Your task to perform on an android device: move an email to a new category in the gmail app Image 0: 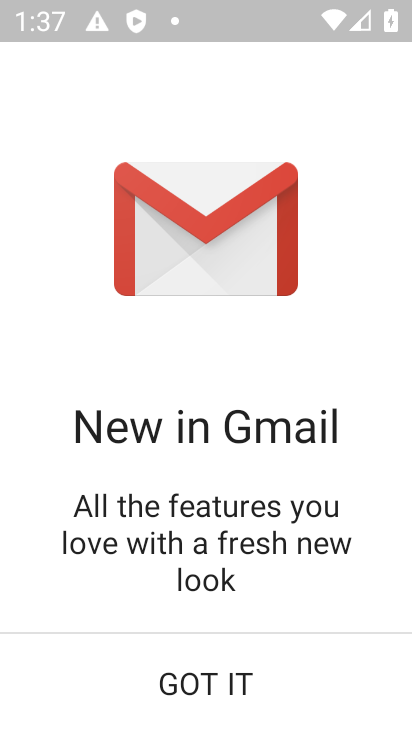
Step 0: press home button
Your task to perform on an android device: move an email to a new category in the gmail app Image 1: 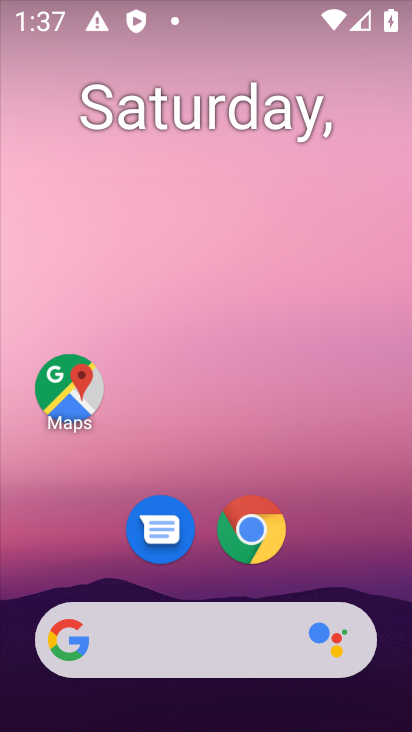
Step 1: drag from (358, 378) to (241, 21)
Your task to perform on an android device: move an email to a new category in the gmail app Image 2: 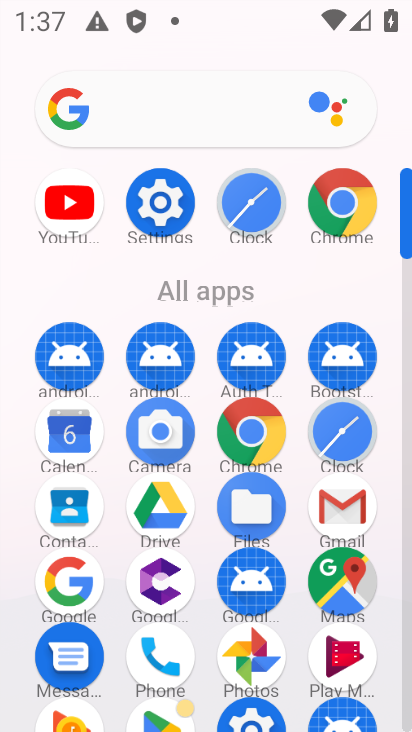
Step 2: click (349, 527)
Your task to perform on an android device: move an email to a new category in the gmail app Image 3: 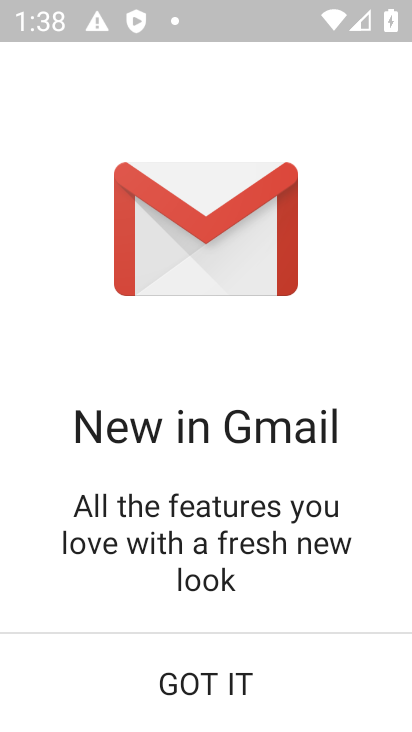
Step 3: click (248, 678)
Your task to perform on an android device: move an email to a new category in the gmail app Image 4: 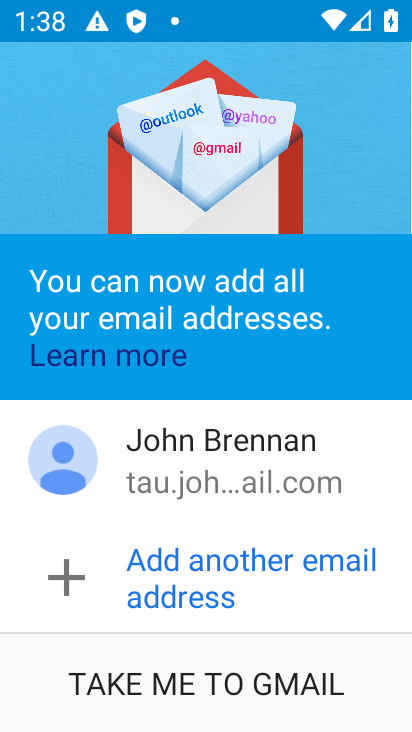
Step 4: click (248, 678)
Your task to perform on an android device: move an email to a new category in the gmail app Image 5: 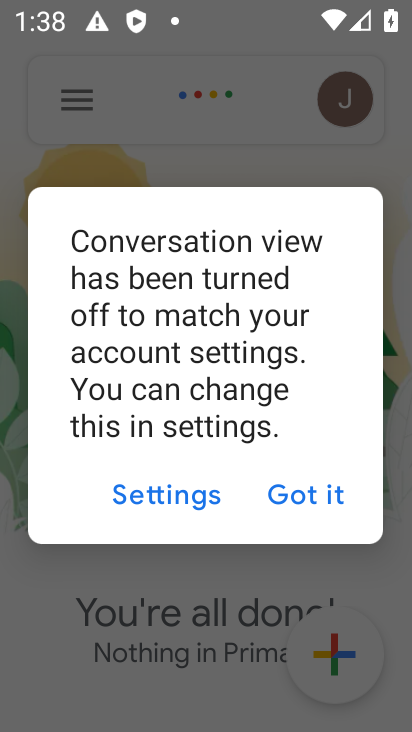
Step 5: click (309, 511)
Your task to perform on an android device: move an email to a new category in the gmail app Image 6: 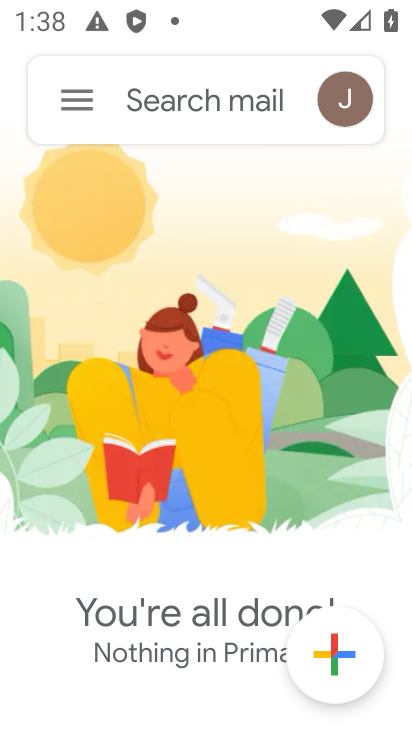
Step 6: click (77, 111)
Your task to perform on an android device: move an email to a new category in the gmail app Image 7: 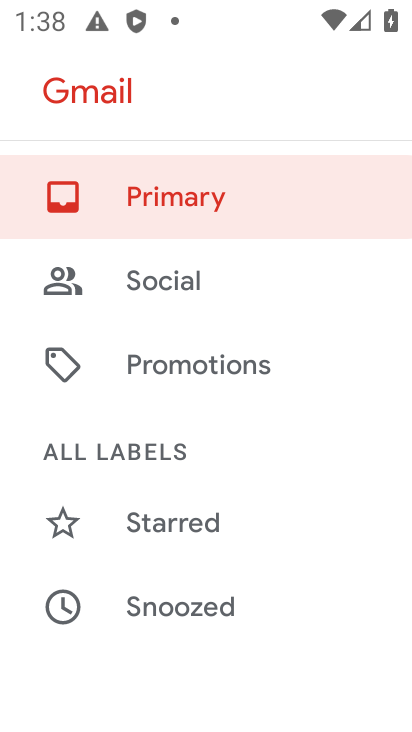
Step 7: drag from (235, 610) to (219, 36)
Your task to perform on an android device: move an email to a new category in the gmail app Image 8: 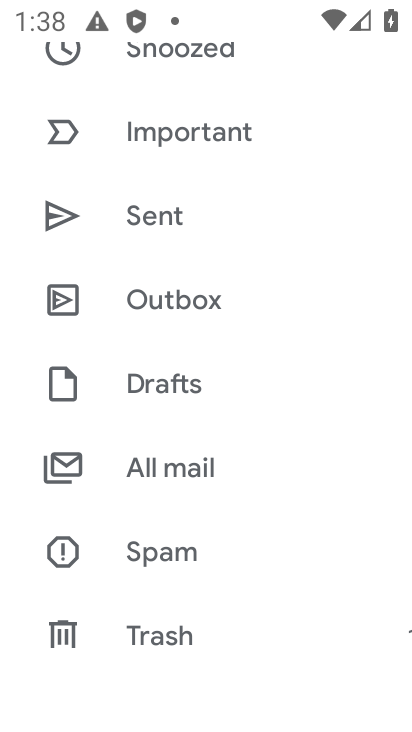
Step 8: click (230, 483)
Your task to perform on an android device: move an email to a new category in the gmail app Image 9: 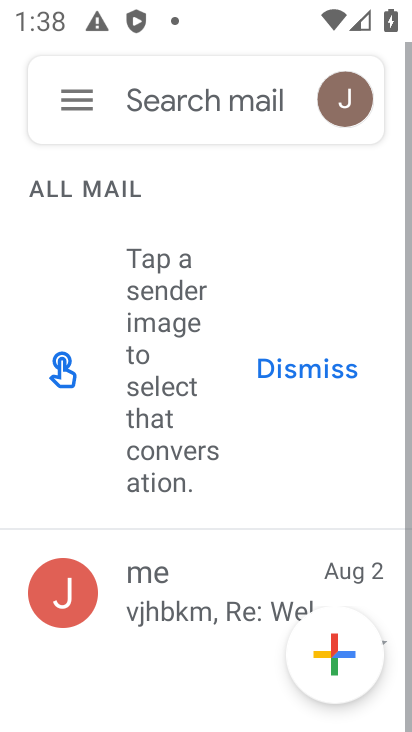
Step 9: click (213, 593)
Your task to perform on an android device: move an email to a new category in the gmail app Image 10: 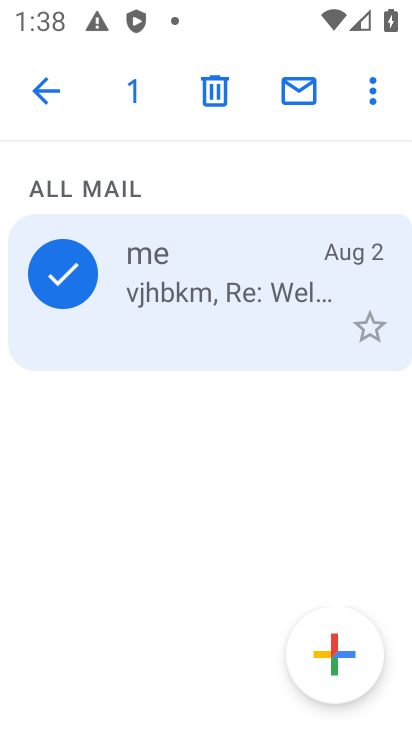
Step 10: click (367, 99)
Your task to perform on an android device: move an email to a new category in the gmail app Image 11: 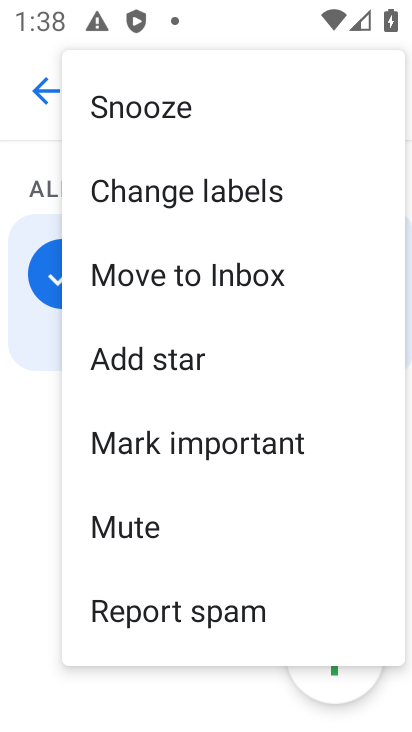
Step 11: click (289, 271)
Your task to perform on an android device: move an email to a new category in the gmail app Image 12: 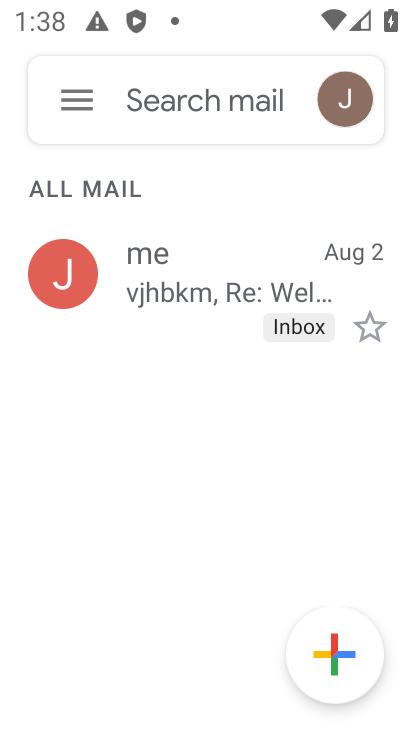
Step 12: task complete